Your task to perform on an android device: turn on the 12-hour format for clock Image 0: 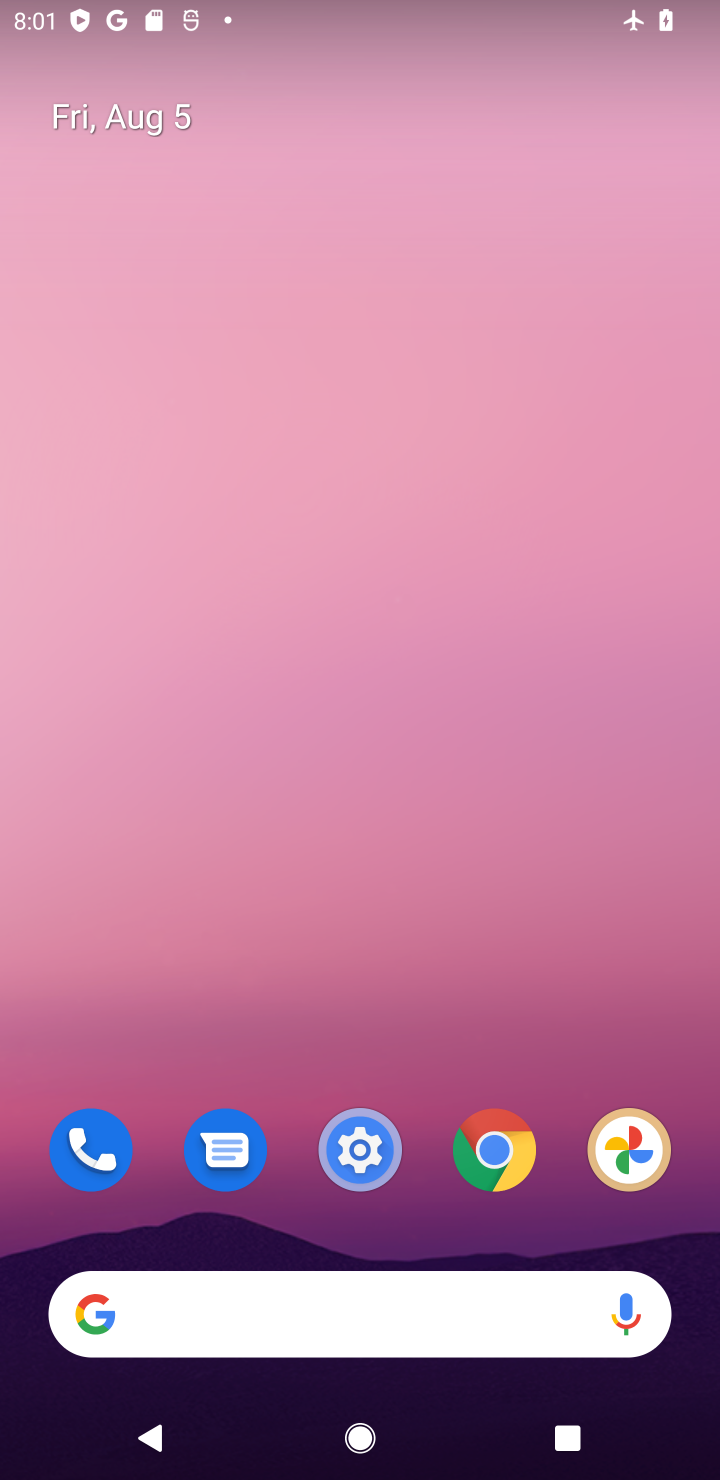
Step 0: press home button
Your task to perform on an android device: turn on the 12-hour format for clock Image 1: 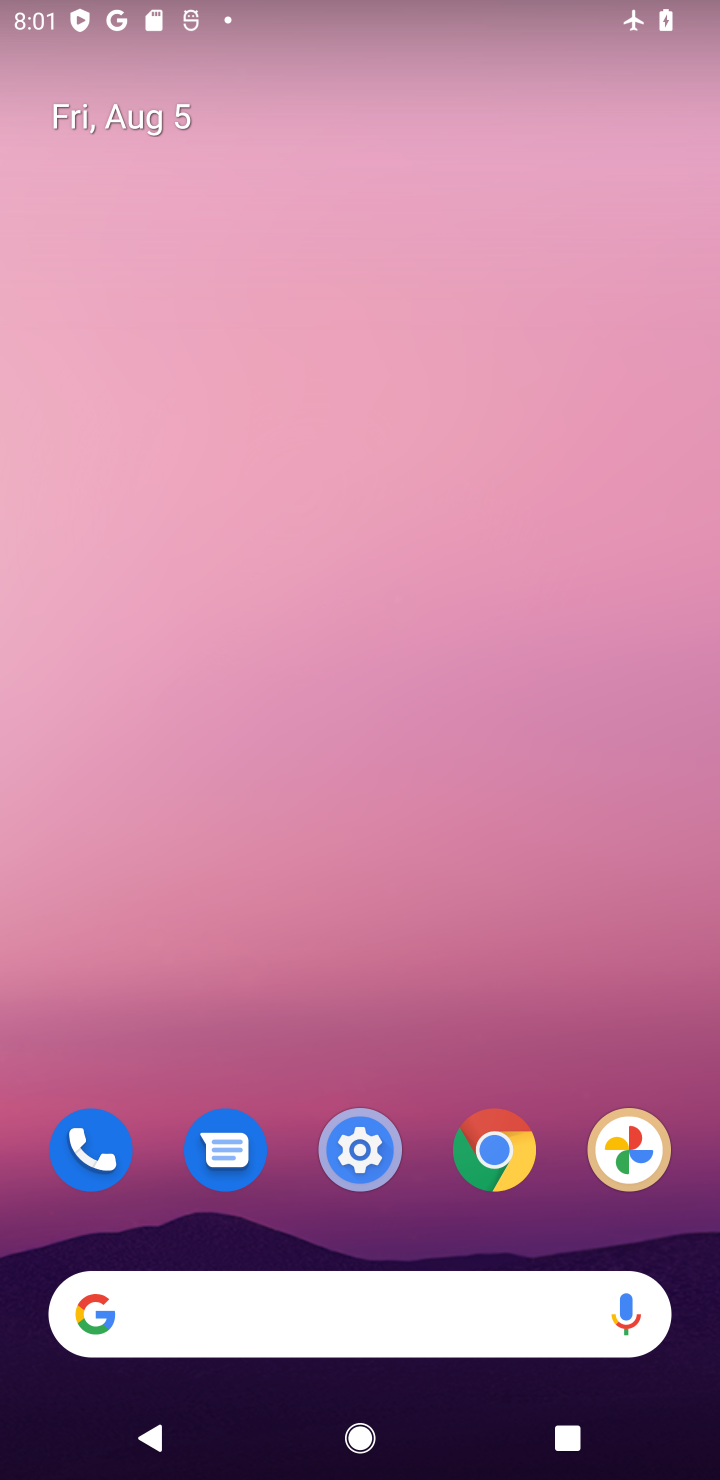
Step 1: drag from (268, 1068) to (318, 290)
Your task to perform on an android device: turn on the 12-hour format for clock Image 2: 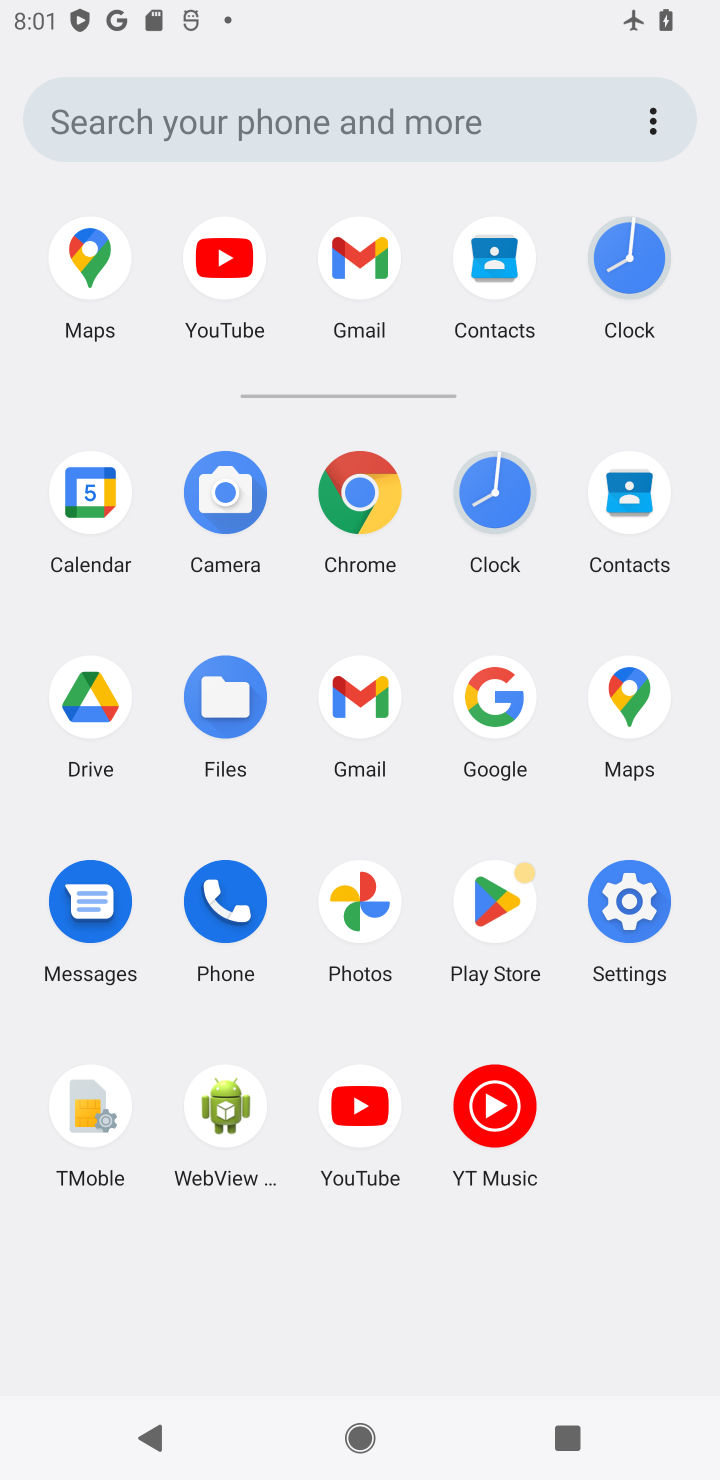
Step 2: click (507, 499)
Your task to perform on an android device: turn on the 12-hour format for clock Image 3: 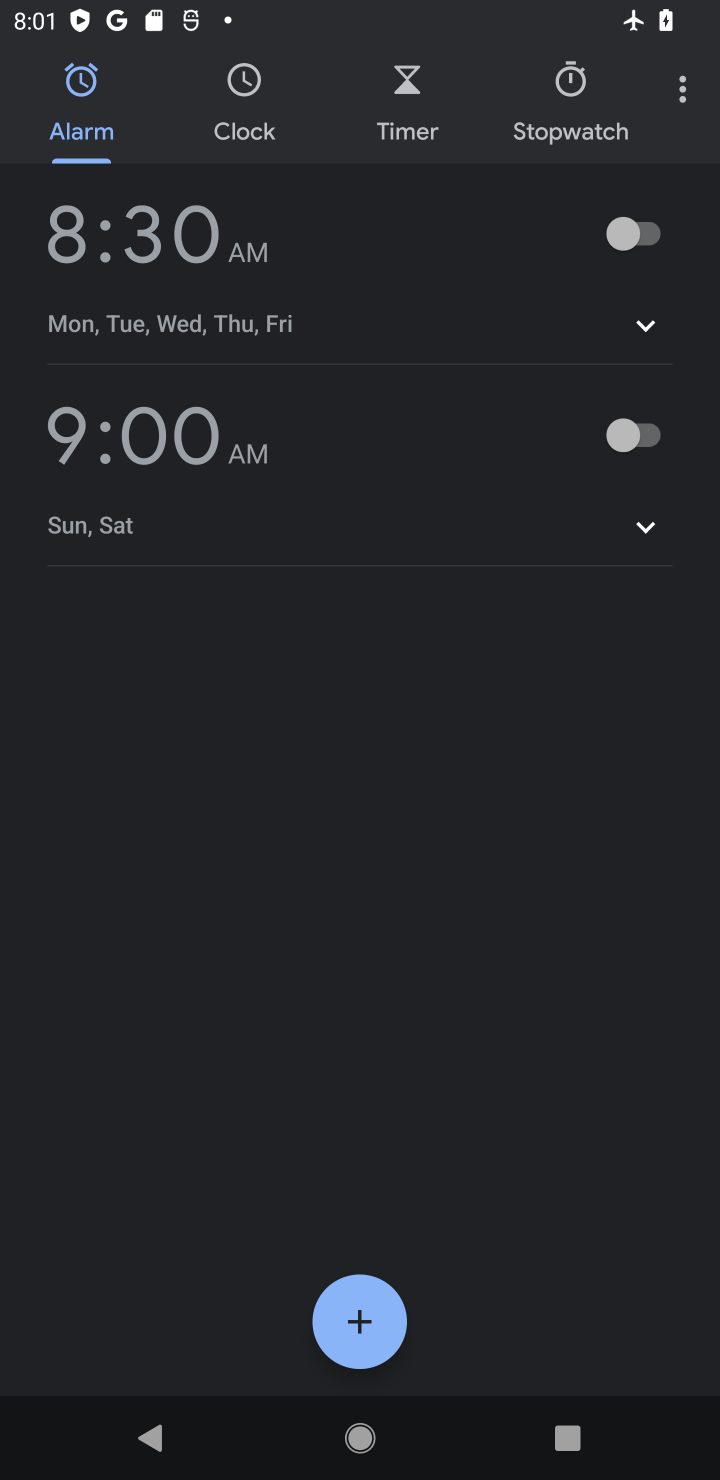
Step 3: click (683, 96)
Your task to perform on an android device: turn on the 12-hour format for clock Image 4: 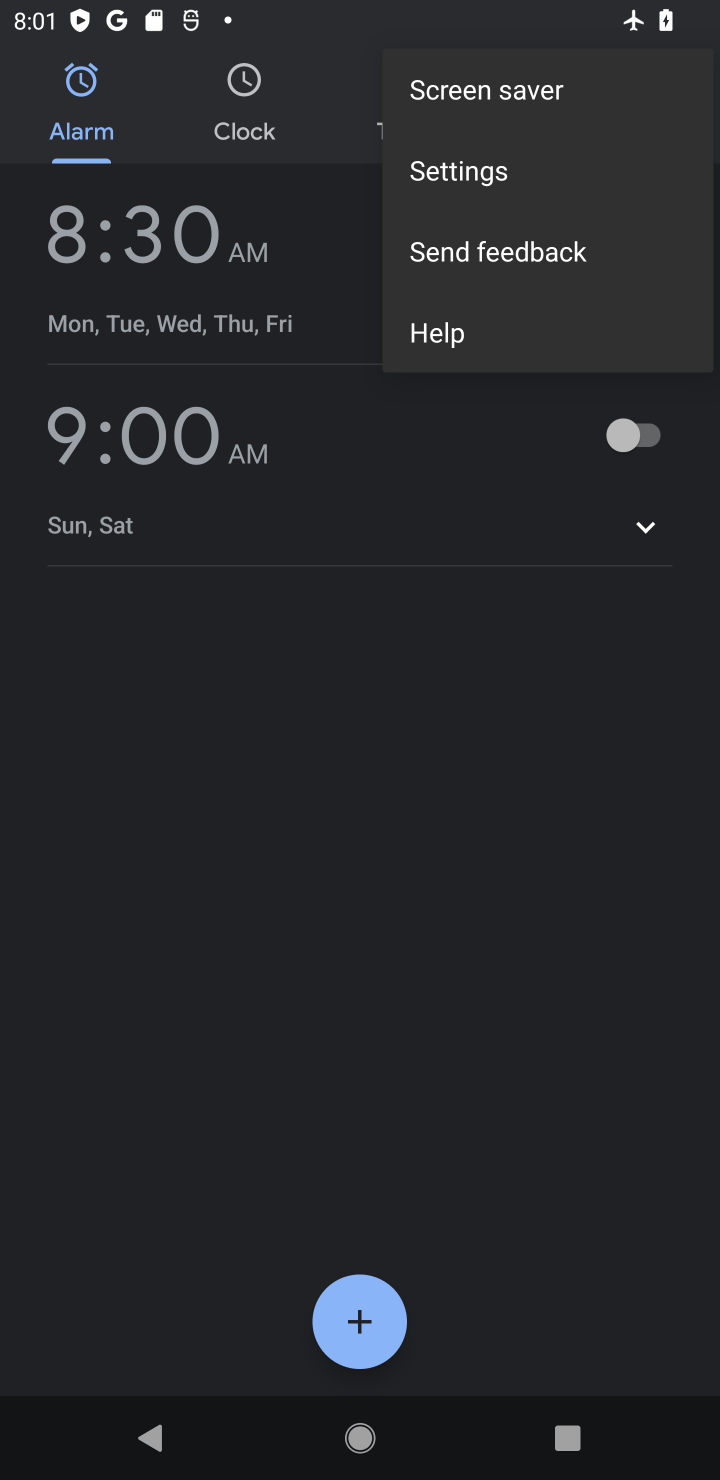
Step 4: click (527, 174)
Your task to perform on an android device: turn on the 12-hour format for clock Image 5: 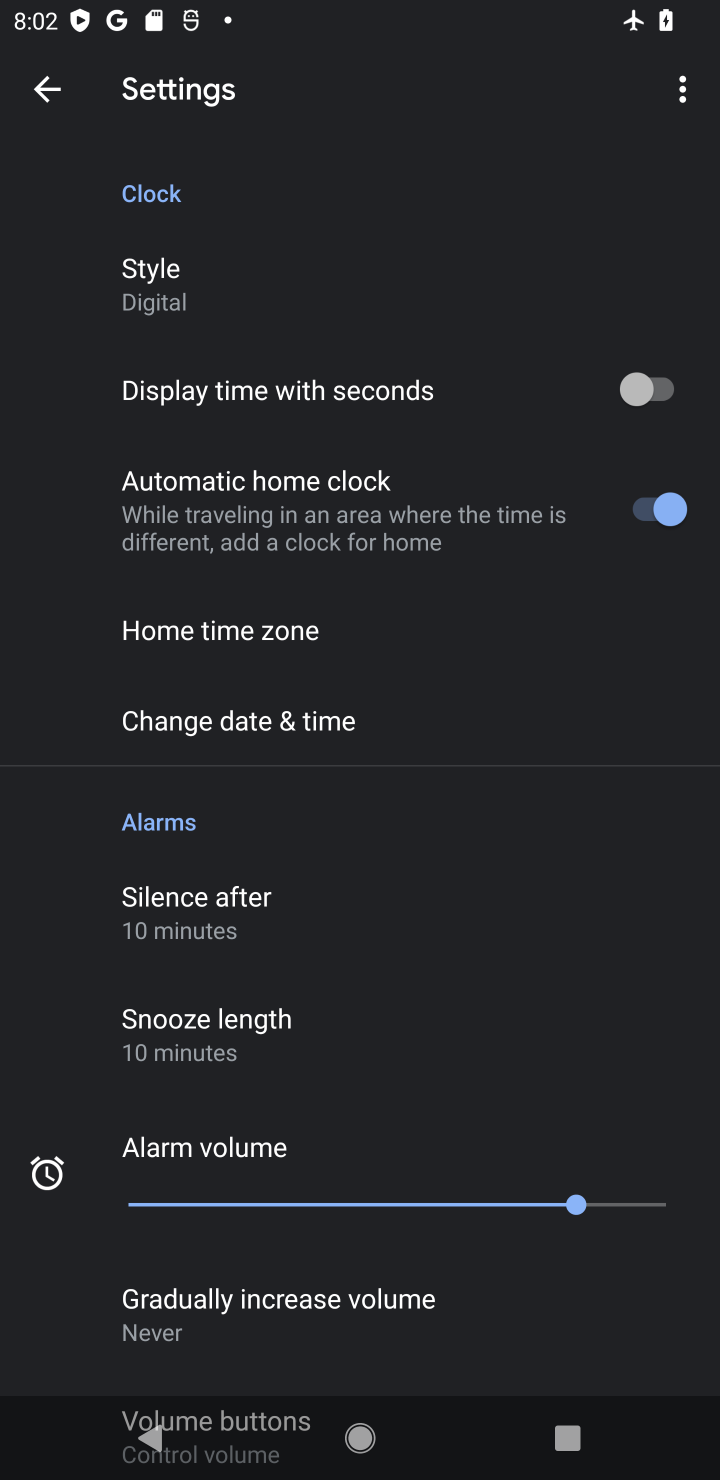
Step 5: click (423, 720)
Your task to perform on an android device: turn on the 12-hour format for clock Image 6: 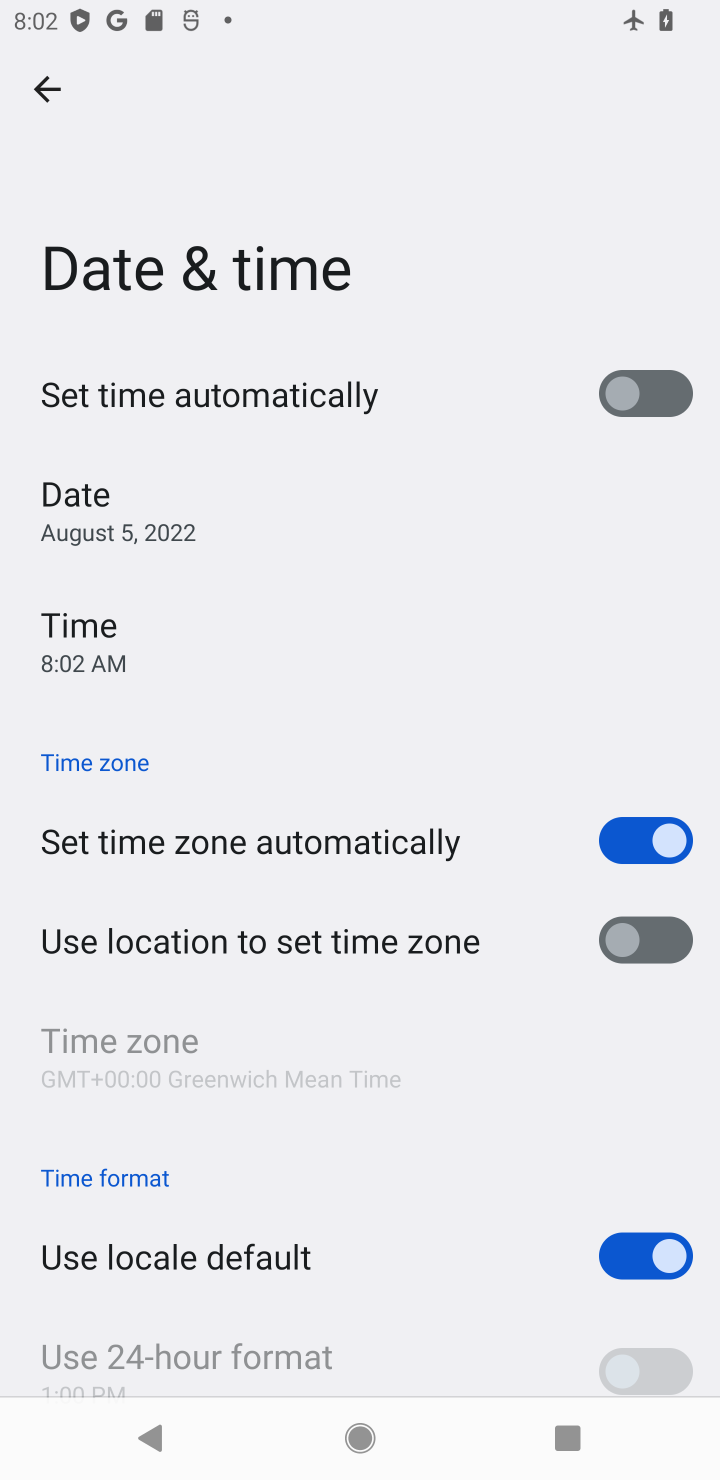
Step 6: task complete